Your task to perform on an android device: Go to sound settings Image 0: 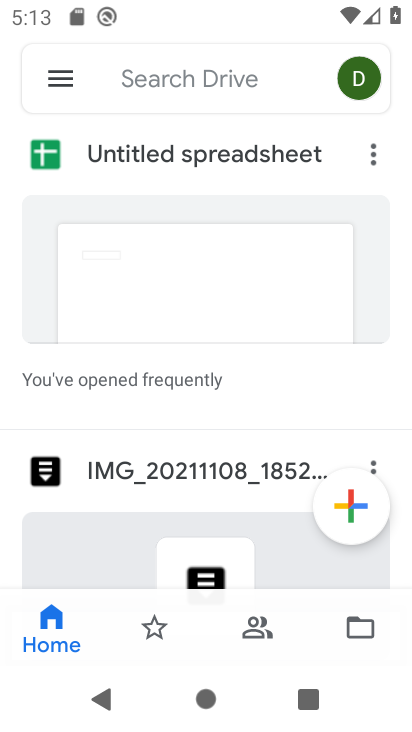
Step 0: press home button
Your task to perform on an android device: Go to sound settings Image 1: 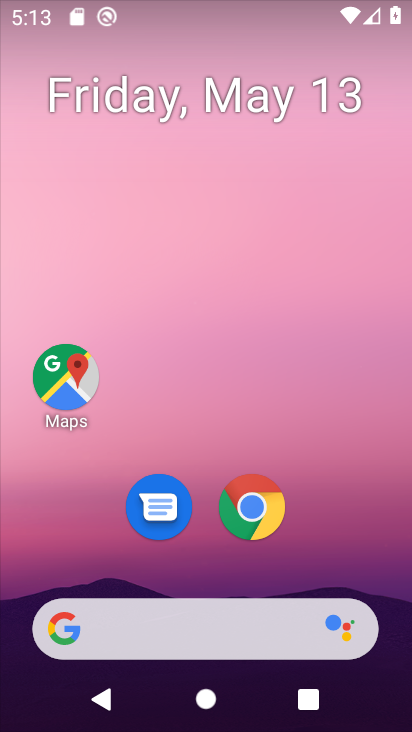
Step 1: drag from (321, 509) to (246, 110)
Your task to perform on an android device: Go to sound settings Image 2: 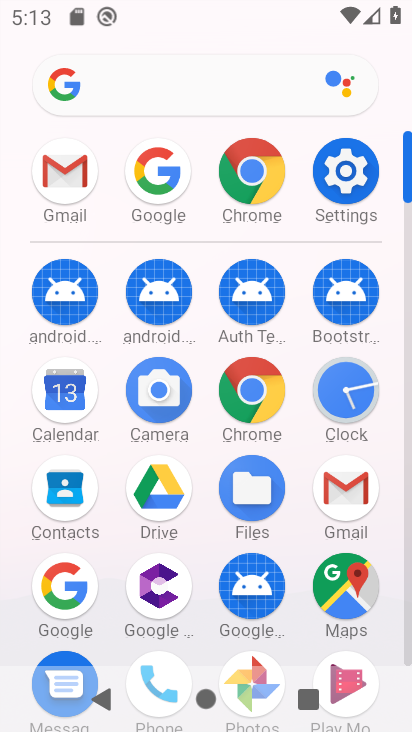
Step 2: click (344, 179)
Your task to perform on an android device: Go to sound settings Image 3: 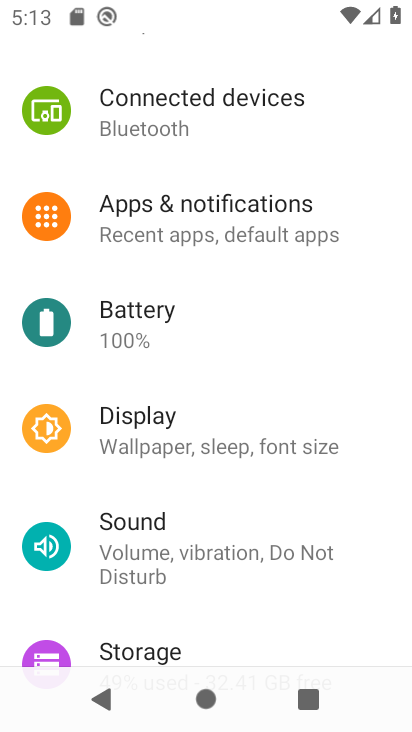
Step 3: click (177, 548)
Your task to perform on an android device: Go to sound settings Image 4: 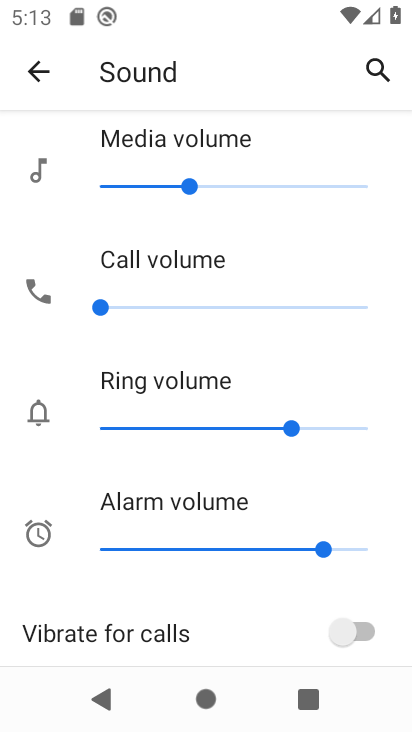
Step 4: task complete